Your task to perform on an android device: open app "Adobe Acrobat Reader: Edit PDF" (install if not already installed) Image 0: 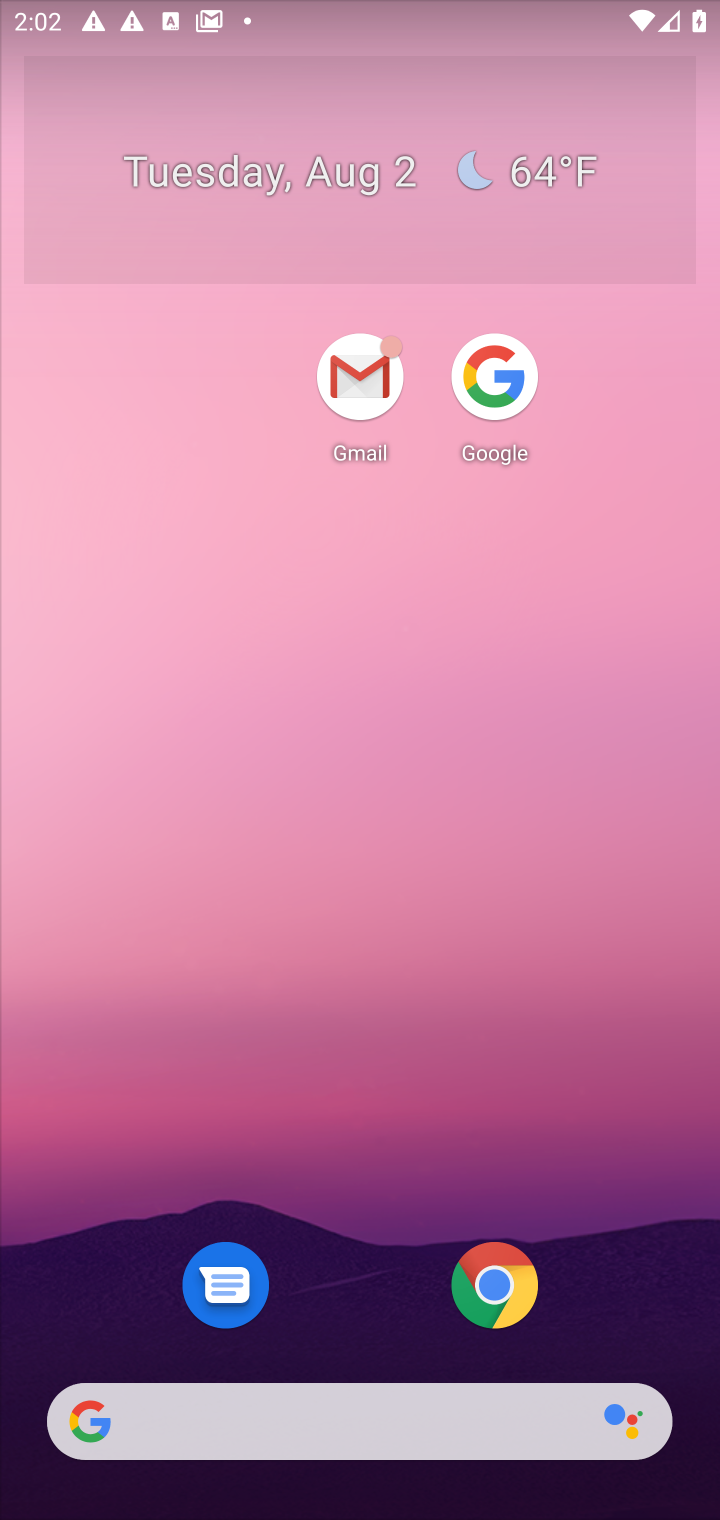
Step 0: press home button
Your task to perform on an android device: open app "Adobe Acrobat Reader: Edit PDF" (install if not already installed) Image 1: 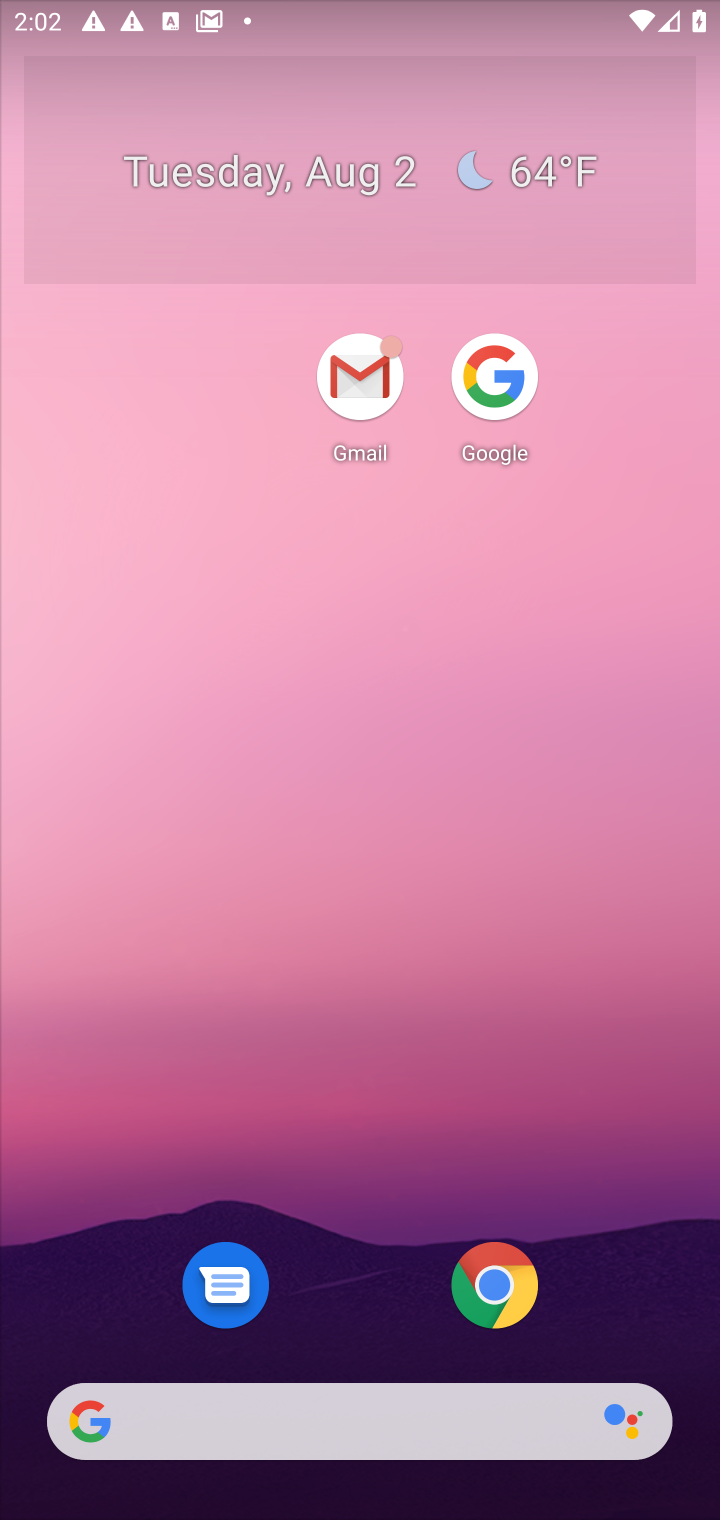
Step 1: drag from (320, 955) to (214, 282)
Your task to perform on an android device: open app "Adobe Acrobat Reader: Edit PDF" (install if not already installed) Image 2: 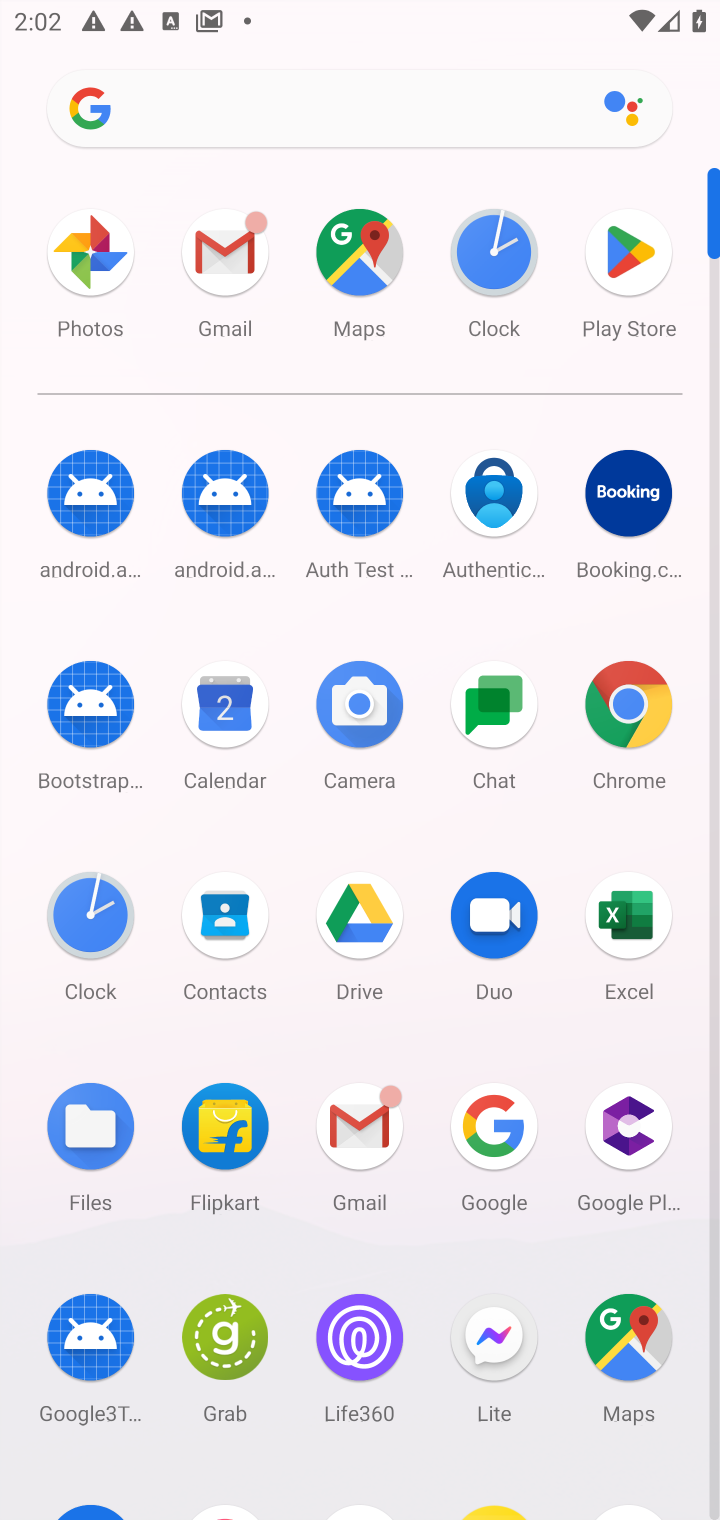
Step 2: drag from (434, 1011) to (383, 543)
Your task to perform on an android device: open app "Adobe Acrobat Reader: Edit PDF" (install if not already installed) Image 3: 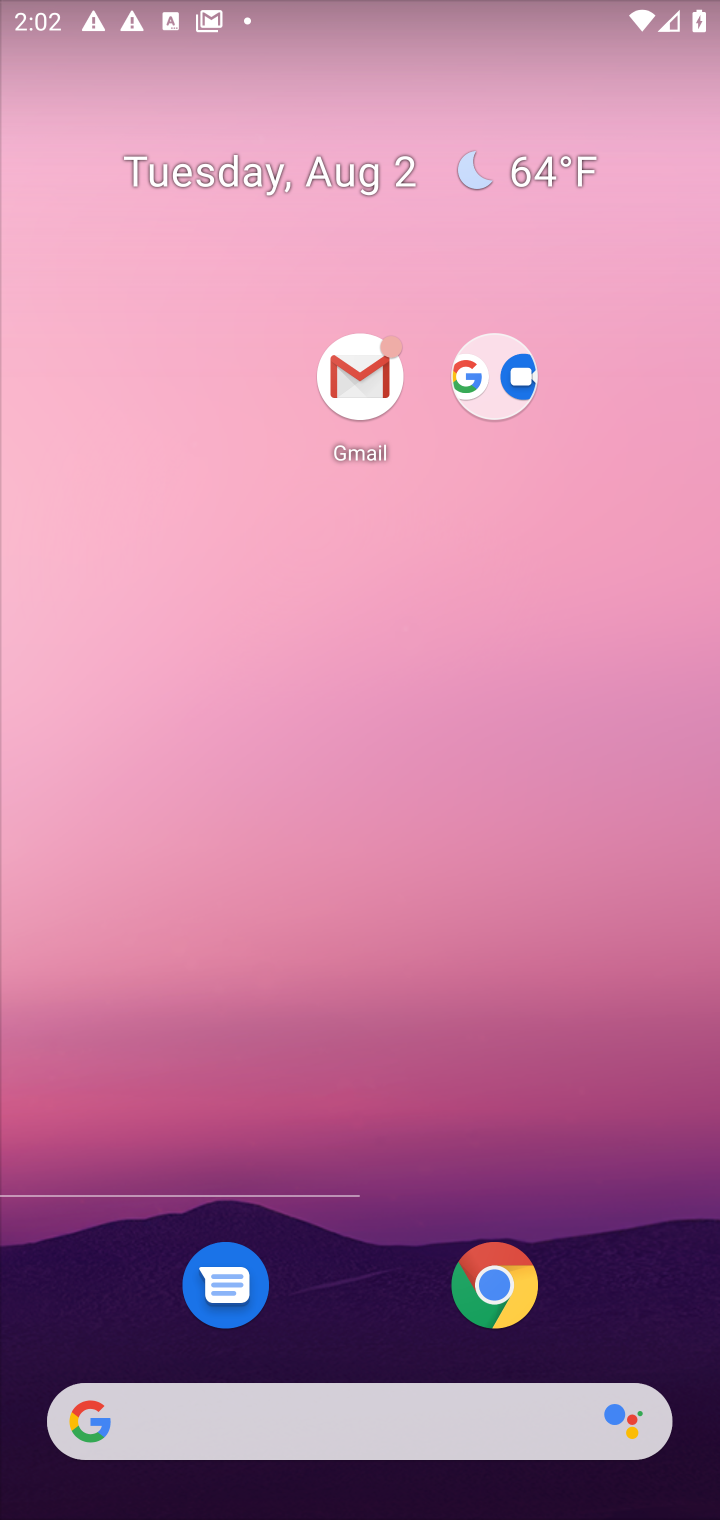
Step 3: drag from (455, 1093) to (411, 200)
Your task to perform on an android device: open app "Adobe Acrobat Reader: Edit PDF" (install if not already installed) Image 4: 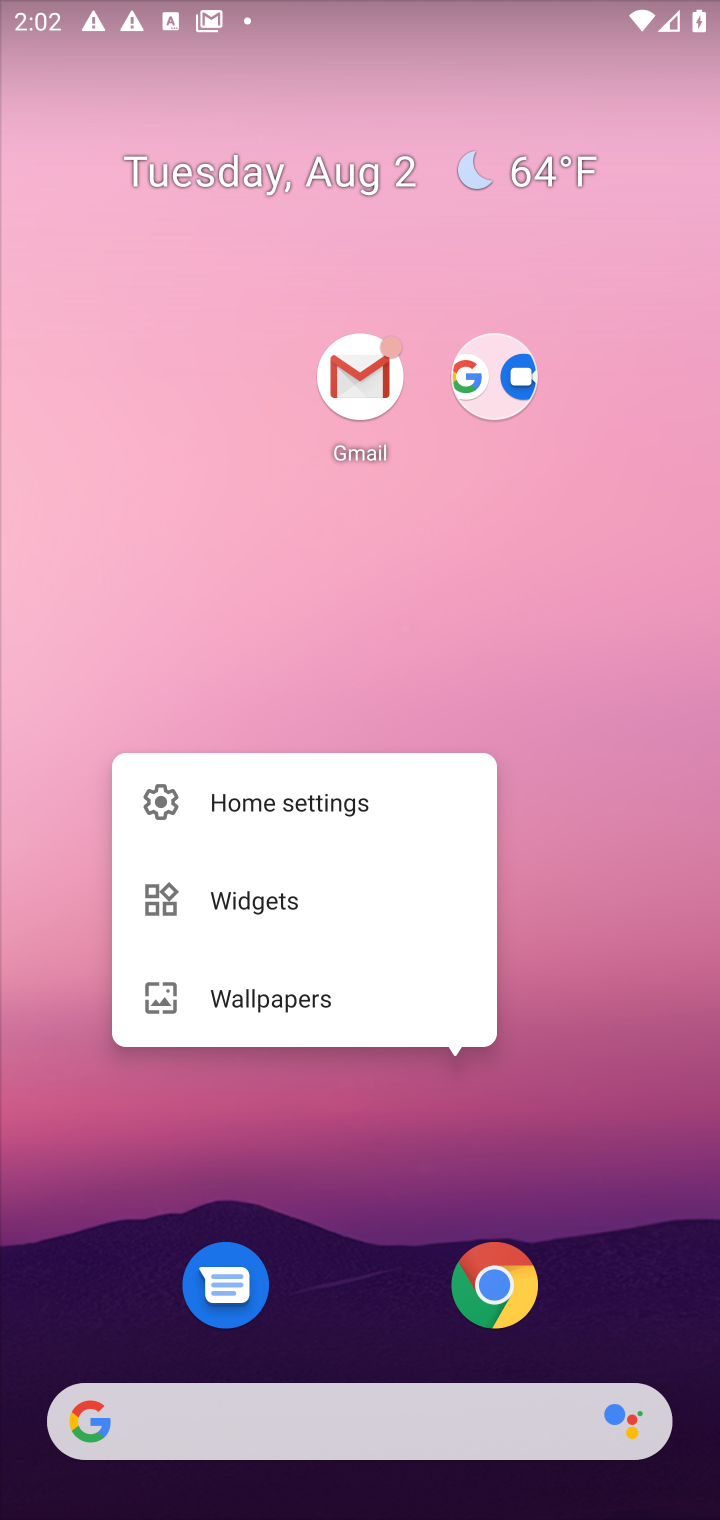
Step 4: click (573, 823)
Your task to perform on an android device: open app "Adobe Acrobat Reader: Edit PDF" (install if not already installed) Image 5: 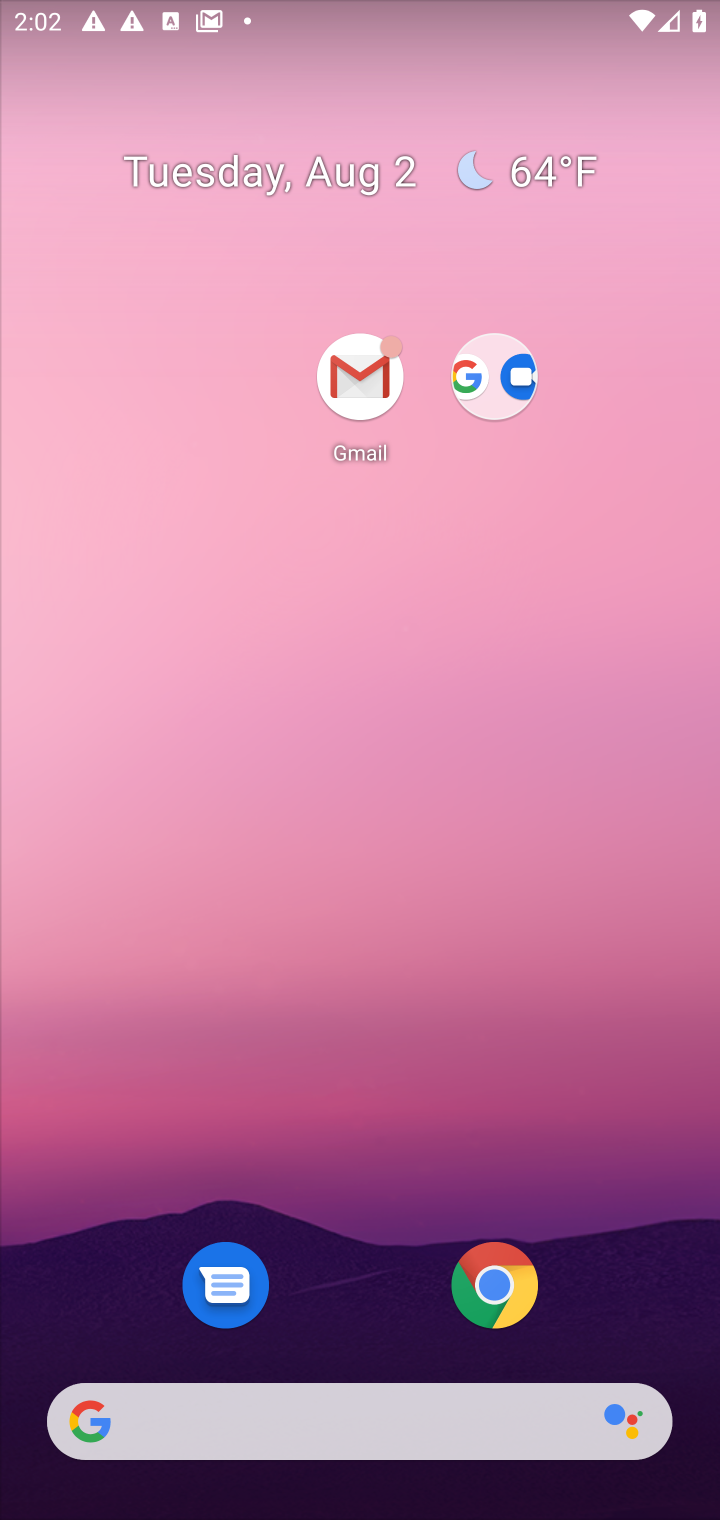
Step 5: drag from (549, 1126) to (397, 11)
Your task to perform on an android device: open app "Adobe Acrobat Reader: Edit PDF" (install if not already installed) Image 6: 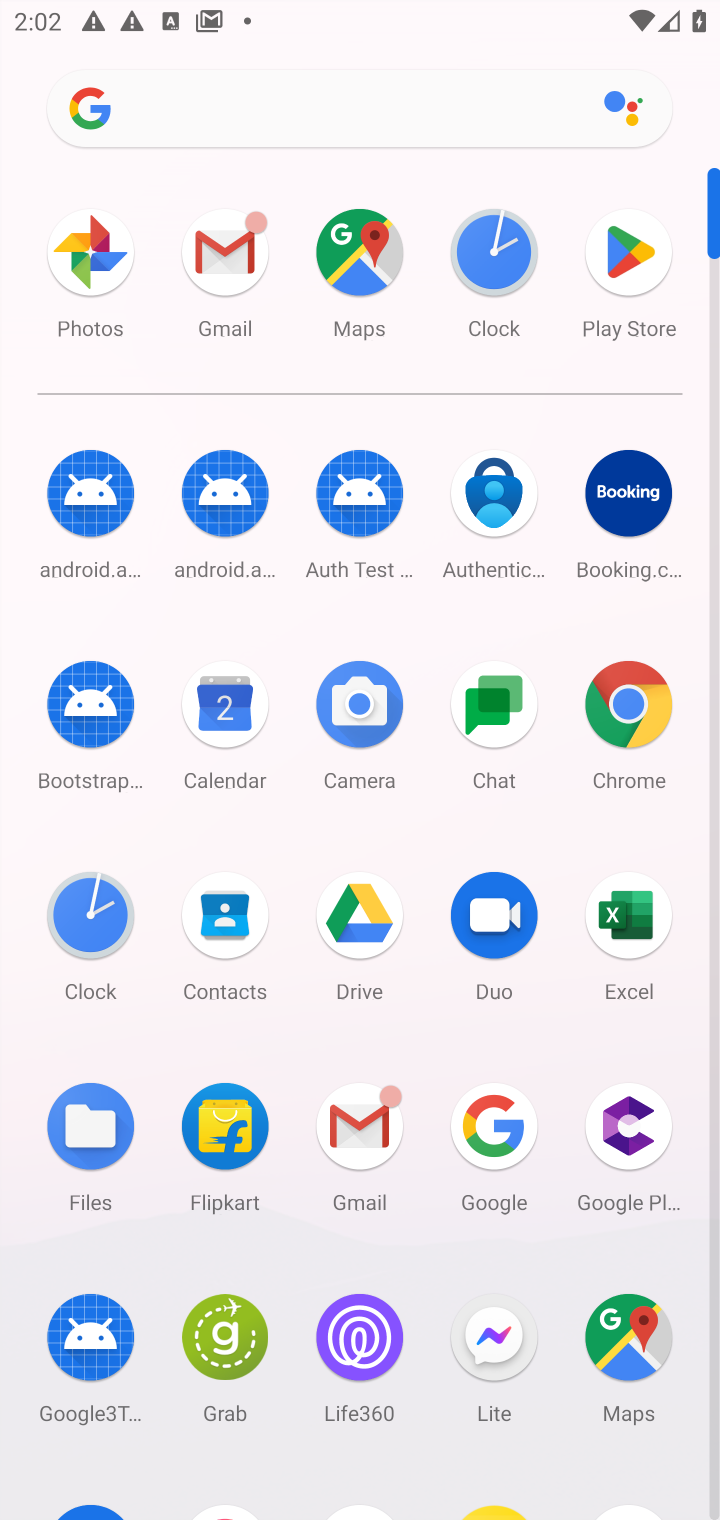
Step 6: drag from (426, 1082) to (390, 469)
Your task to perform on an android device: open app "Adobe Acrobat Reader: Edit PDF" (install if not already installed) Image 7: 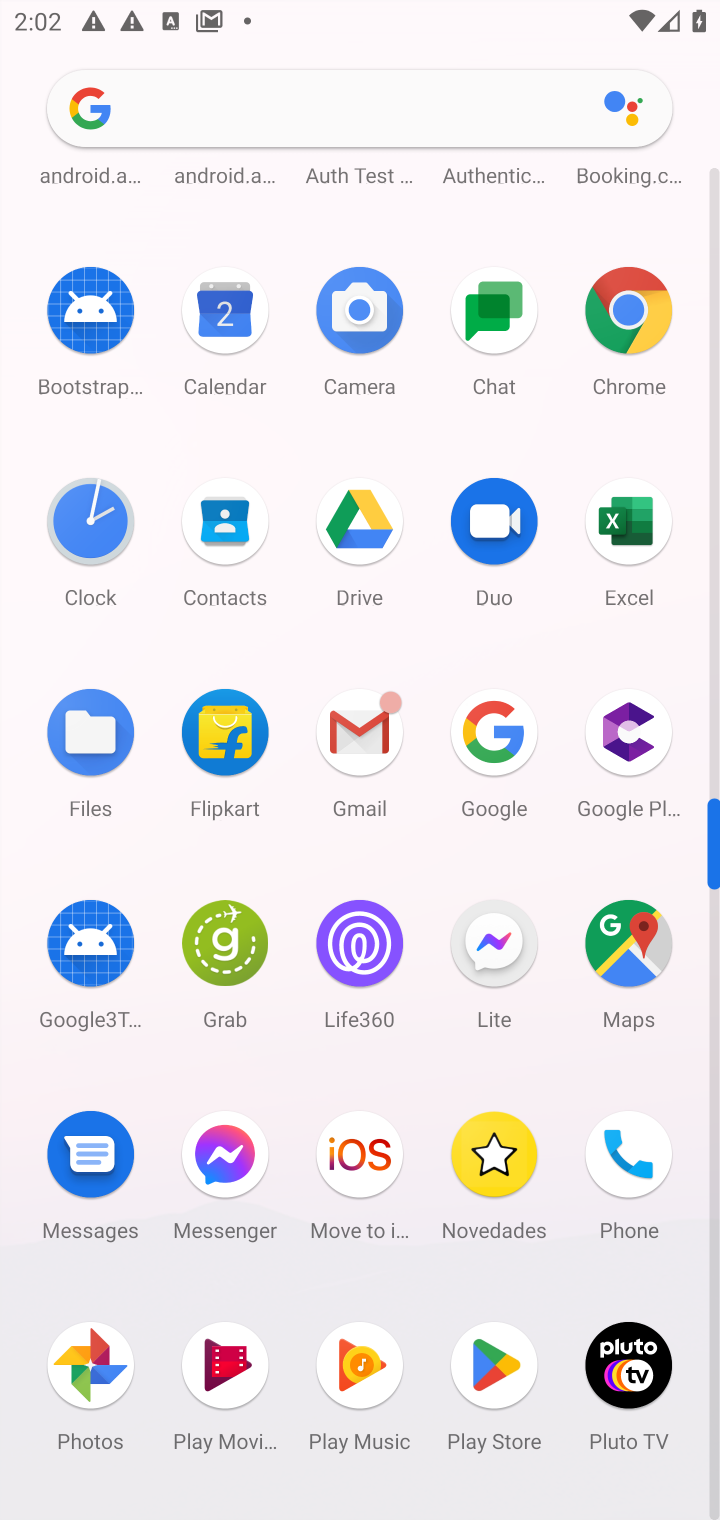
Step 7: drag from (416, 1258) to (404, 510)
Your task to perform on an android device: open app "Adobe Acrobat Reader: Edit PDF" (install if not already installed) Image 8: 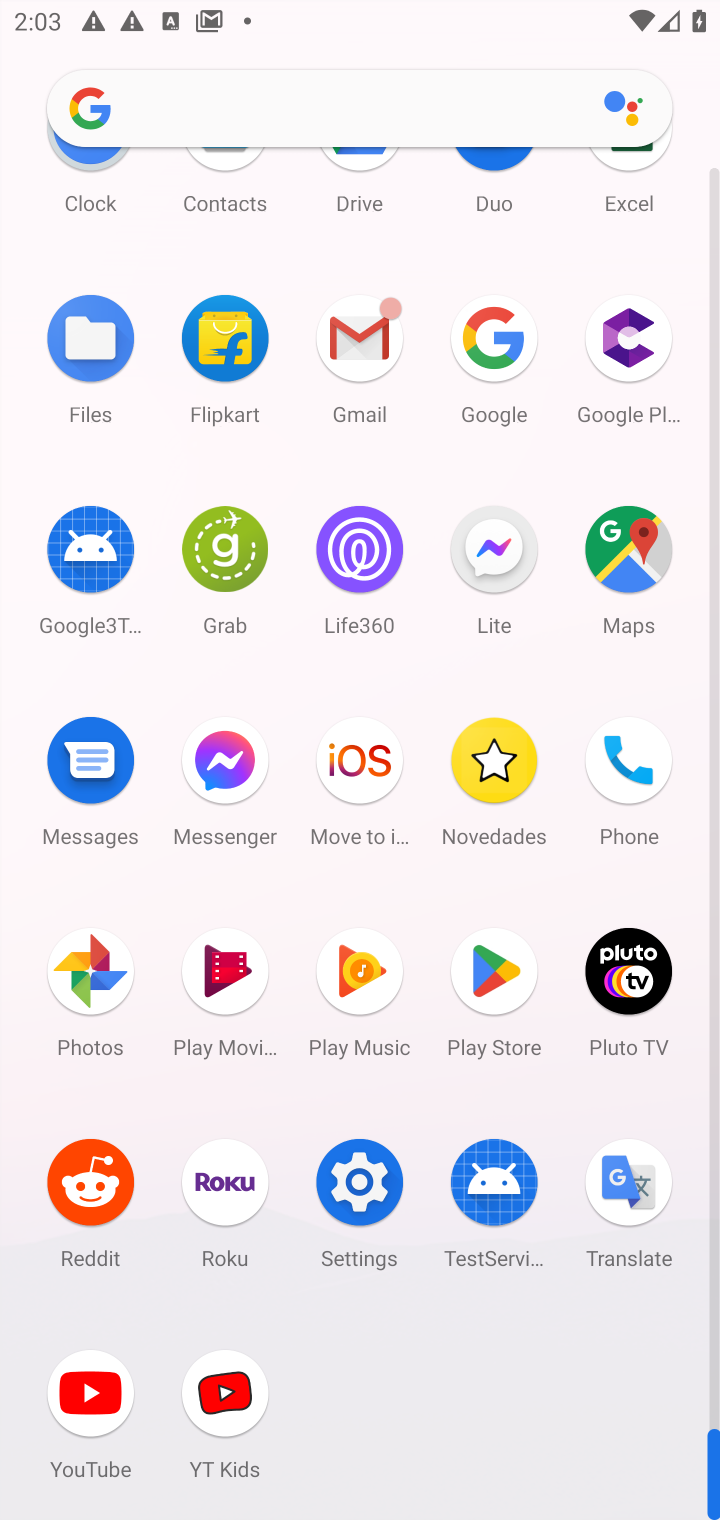
Step 8: click (483, 972)
Your task to perform on an android device: open app "Adobe Acrobat Reader: Edit PDF" (install if not already installed) Image 9: 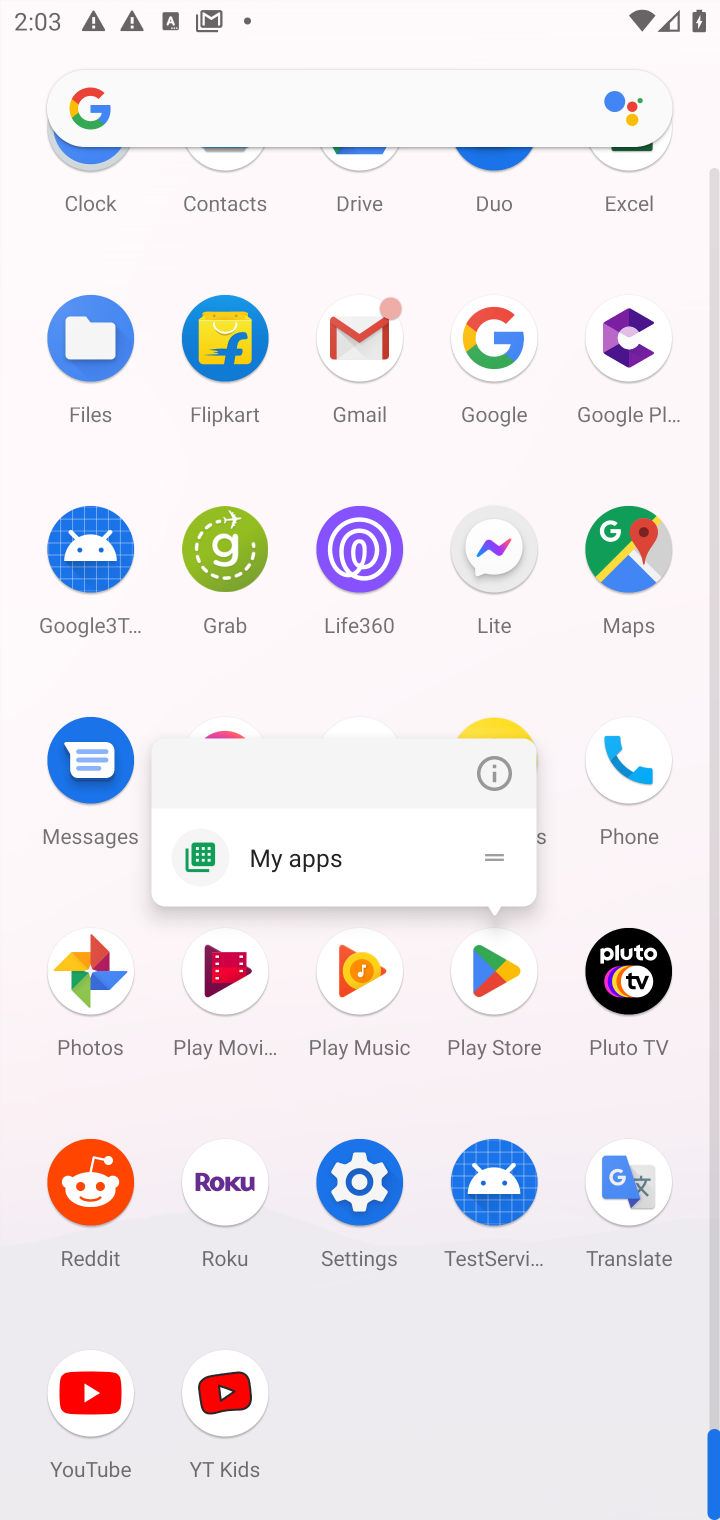
Step 9: click (483, 972)
Your task to perform on an android device: open app "Adobe Acrobat Reader: Edit PDF" (install if not already installed) Image 10: 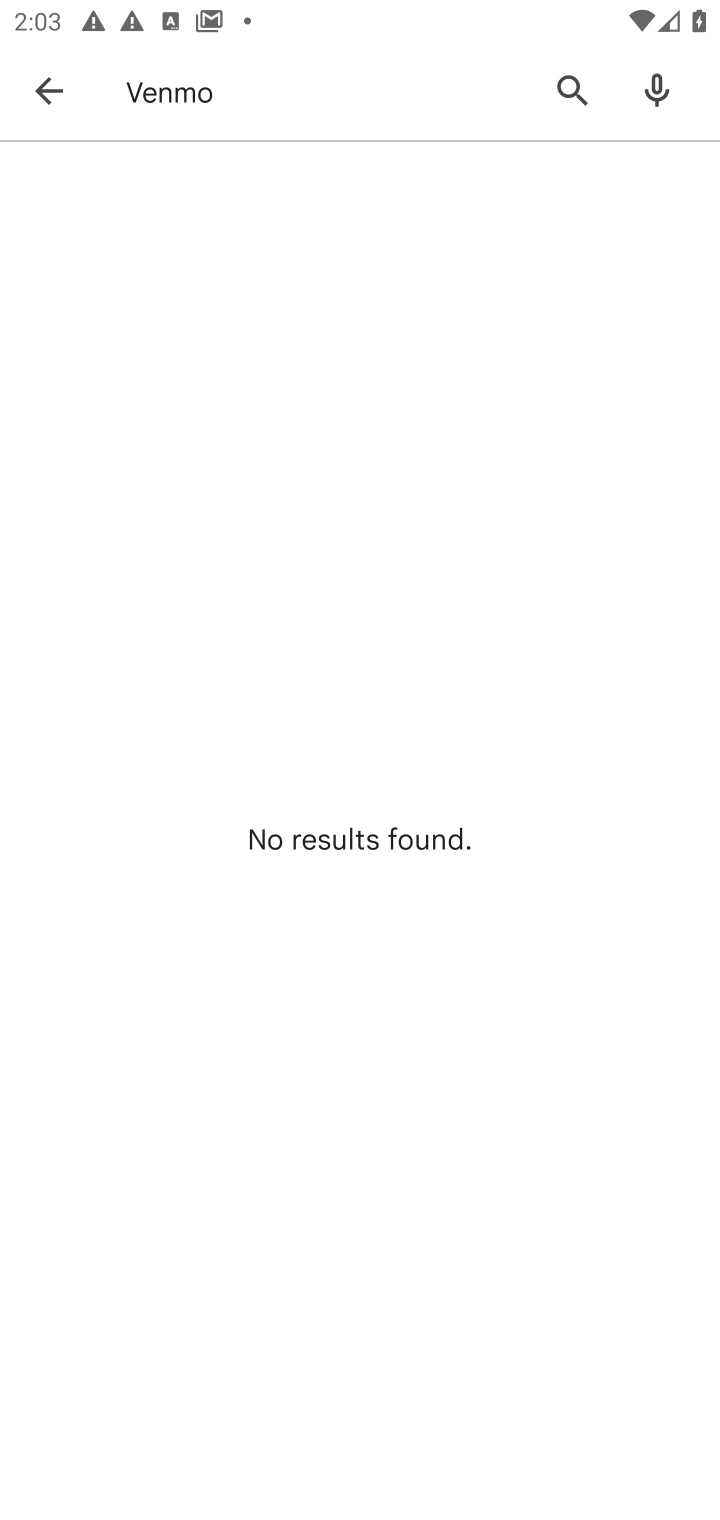
Step 10: click (324, 108)
Your task to perform on an android device: open app "Adobe Acrobat Reader: Edit PDF" (install if not already installed) Image 11: 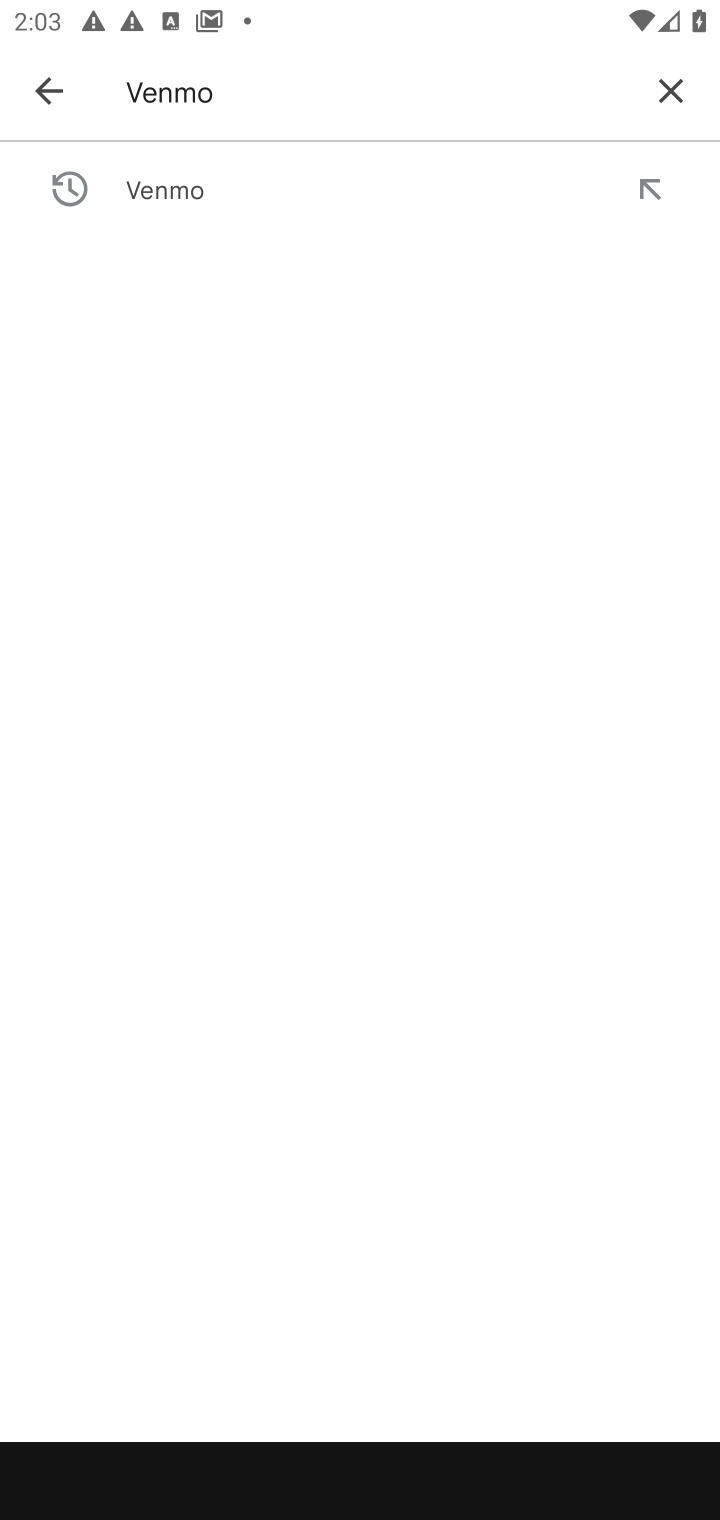
Step 11: click (656, 83)
Your task to perform on an android device: open app "Adobe Acrobat Reader: Edit PDF" (install if not already installed) Image 12: 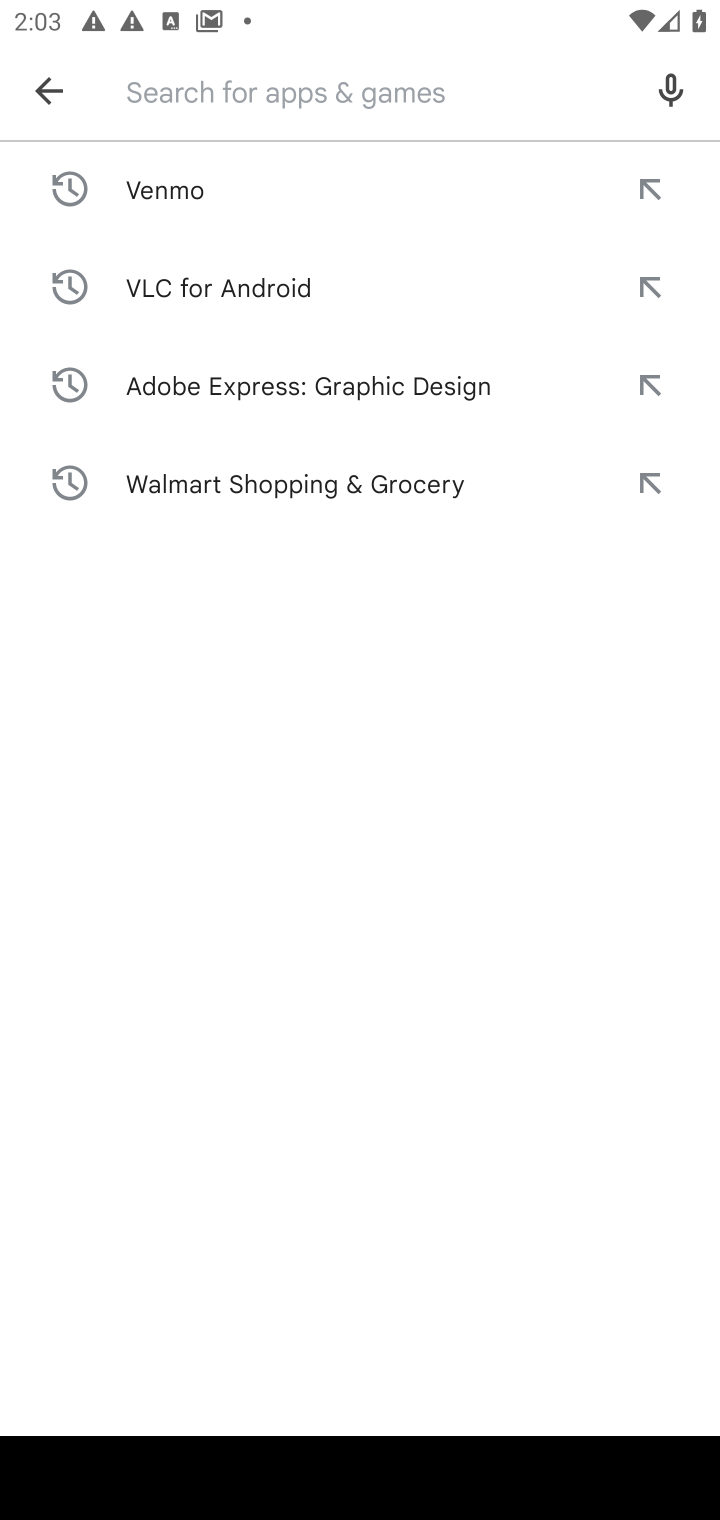
Step 12: type "Adobe Acrobat Reader: Edit PDF"
Your task to perform on an android device: open app "Adobe Acrobat Reader: Edit PDF" (install if not already installed) Image 13: 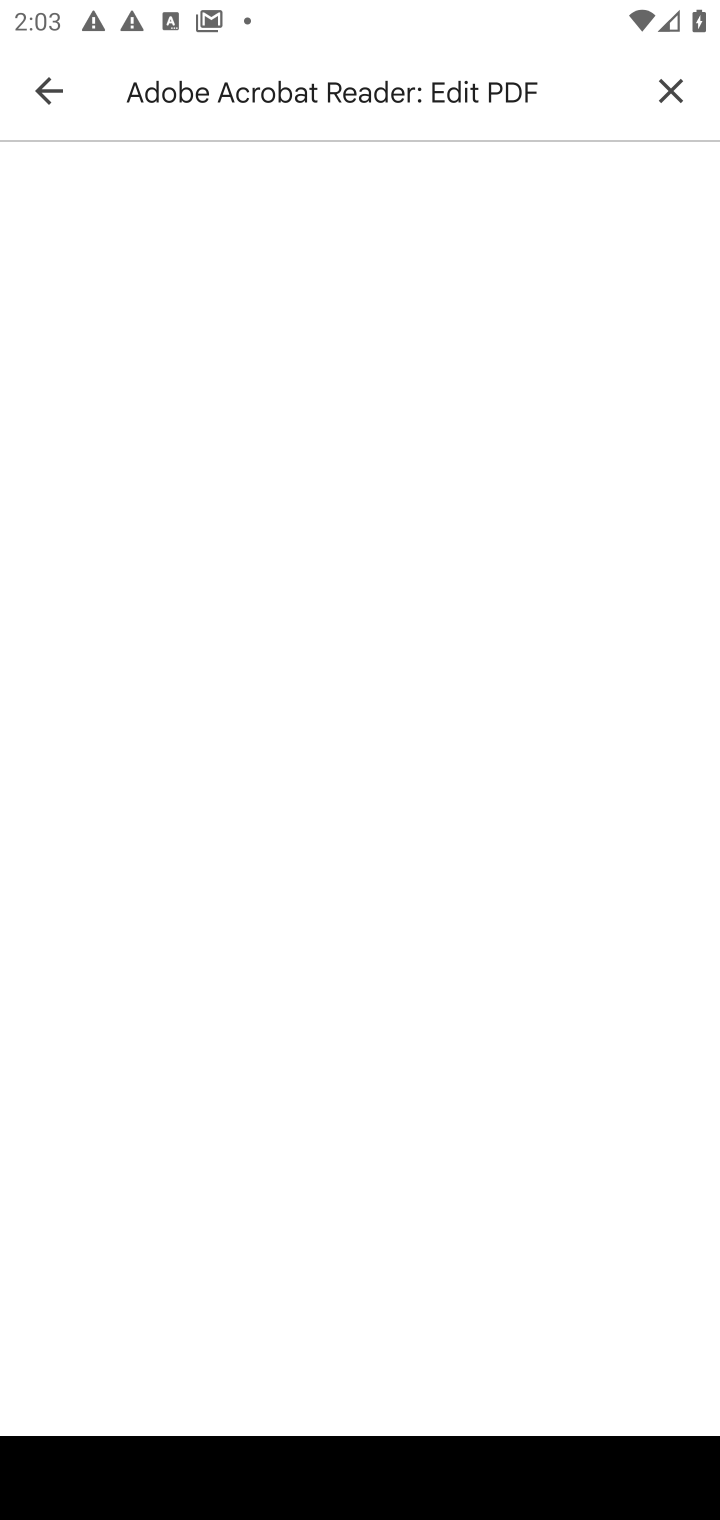
Step 13: press enter
Your task to perform on an android device: open app "Adobe Acrobat Reader: Edit PDF" (install if not already installed) Image 14: 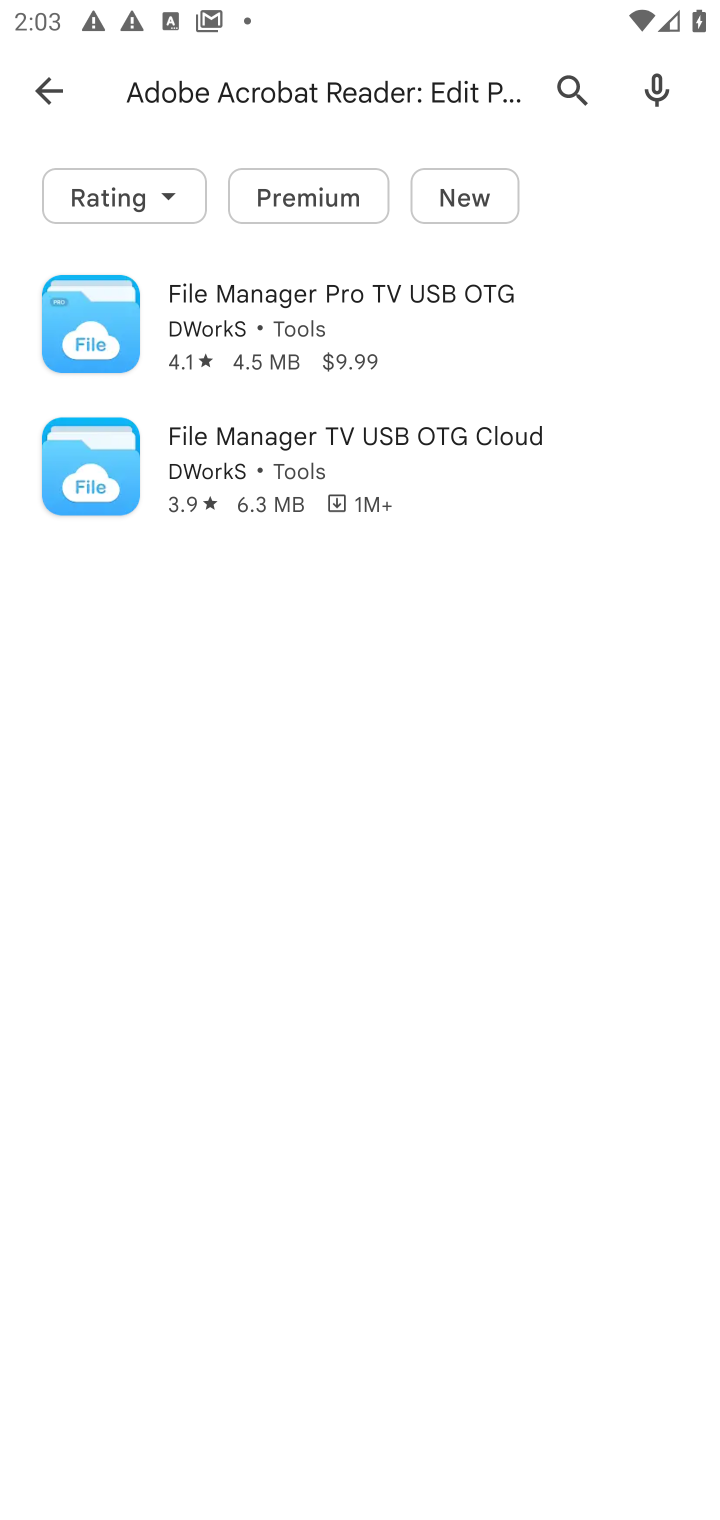
Step 14: task complete